Your task to perform on an android device: Go to Yahoo.com Image 0: 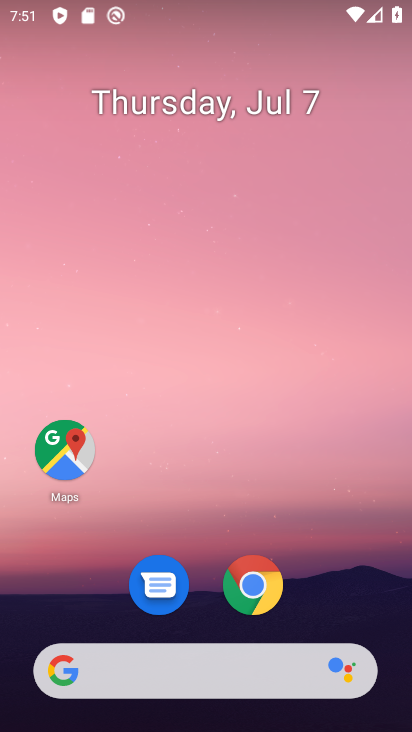
Step 0: drag from (232, 500) to (247, 28)
Your task to perform on an android device: Go to Yahoo.com Image 1: 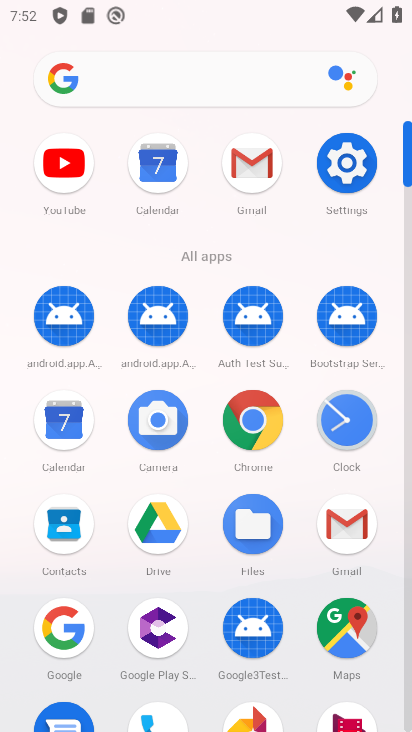
Step 1: click (235, 85)
Your task to perform on an android device: Go to Yahoo.com Image 2: 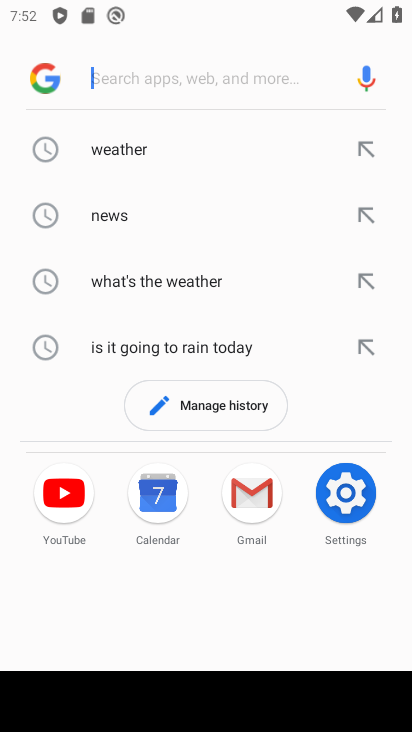
Step 2: type "yahoo.com"
Your task to perform on an android device: Go to Yahoo.com Image 3: 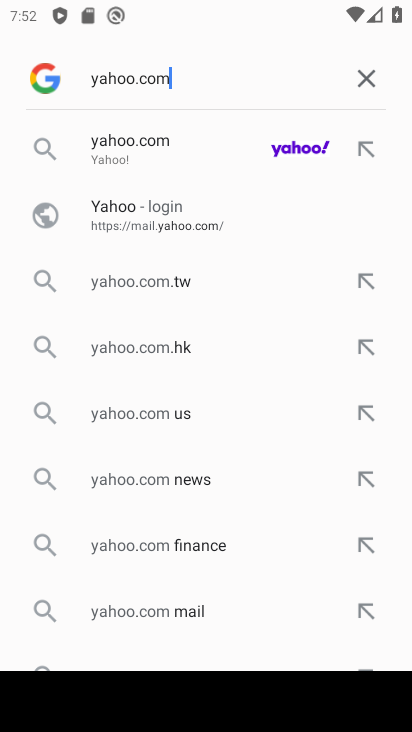
Step 3: click (291, 151)
Your task to perform on an android device: Go to Yahoo.com Image 4: 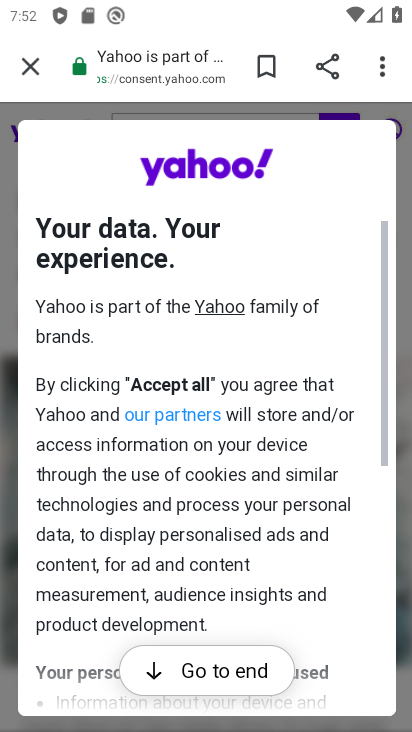
Step 4: click (246, 668)
Your task to perform on an android device: Go to Yahoo.com Image 5: 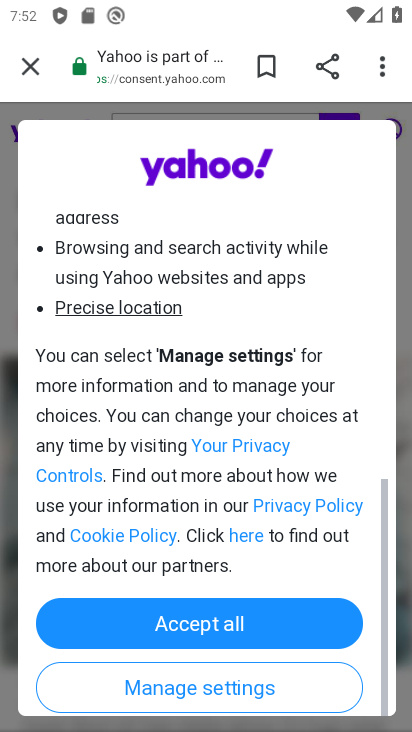
Step 5: click (250, 625)
Your task to perform on an android device: Go to Yahoo.com Image 6: 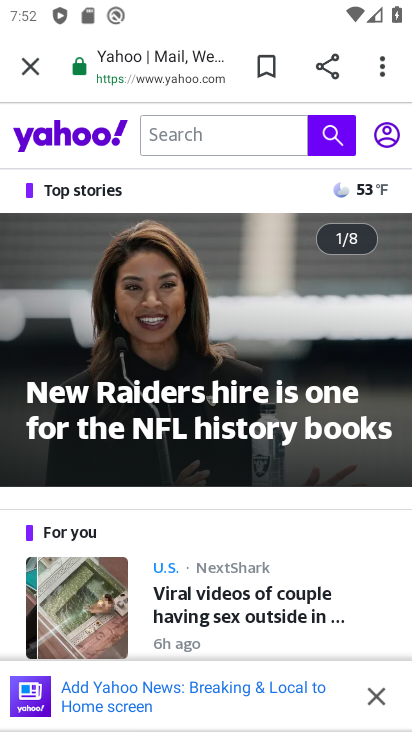
Step 6: task complete